Your task to perform on an android device: turn off picture-in-picture Image 0: 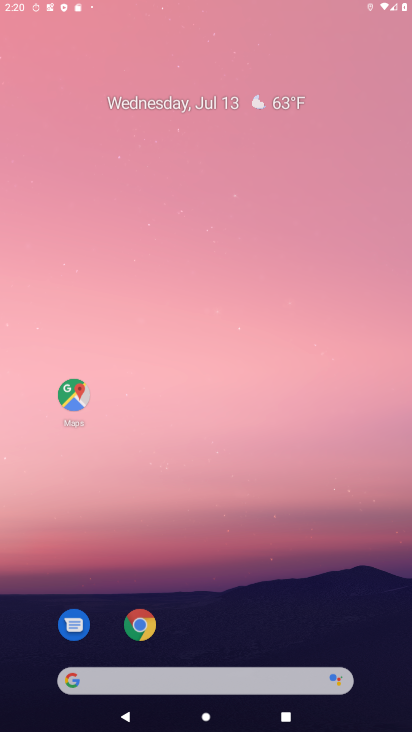
Step 0: drag from (209, 323) to (223, 450)
Your task to perform on an android device: turn off picture-in-picture Image 1: 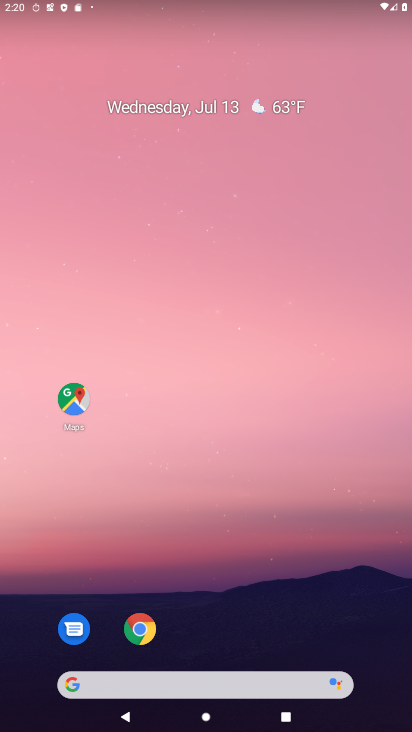
Step 1: drag from (174, 645) to (224, 182)
Your task to perform on an android device: turn off picture-in-picture Image 2: 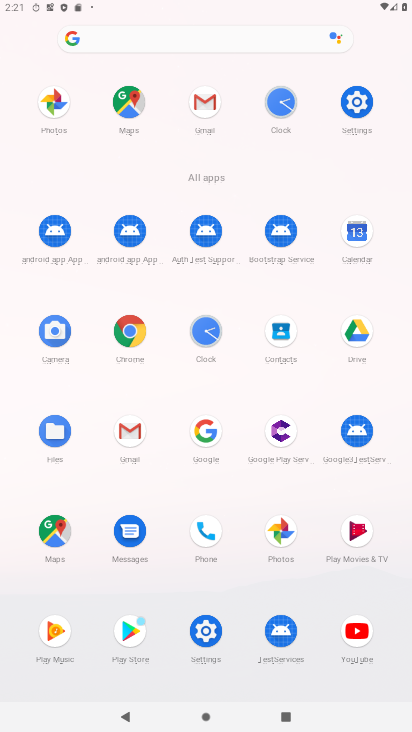
Step 2: click (359, 100)
Your task to perform on an android device: turn off picture-in-picture Image 3: 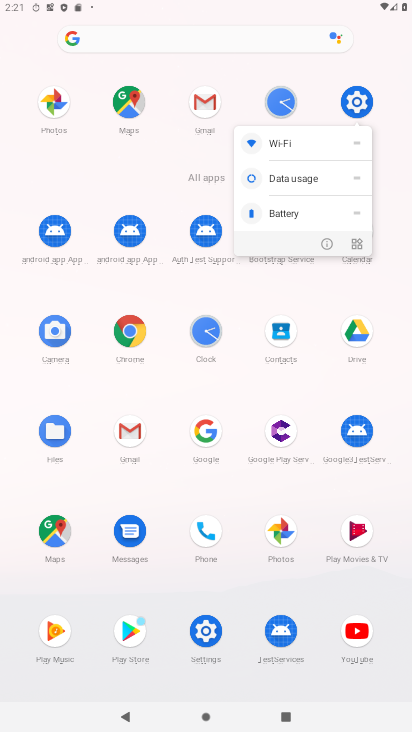
Step 3: click (323, 249)
Your task to perform on an android device: turn off picture-in-picture Image 4: 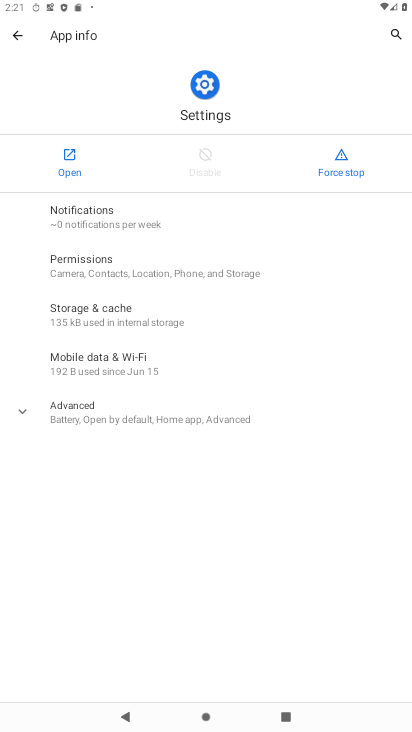
Step 4: click (58, 161)
Your task to perform on an android device: turn off picture-in-picture Image 5: 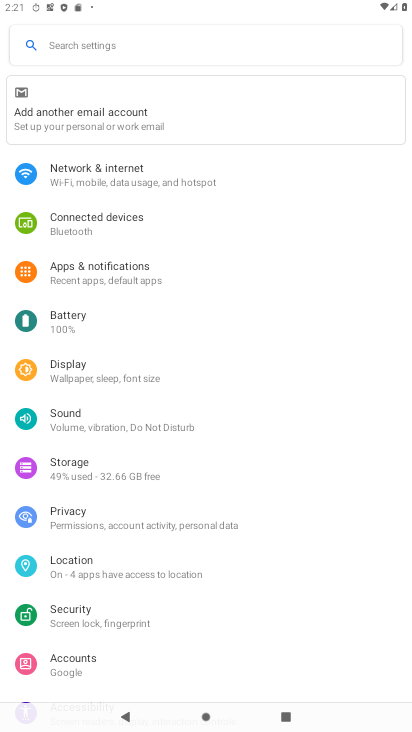
Step 5: drag from (115, 608) to (218, 247)
Your task to perform on an android device: turn off picture-in-picture Image 6: 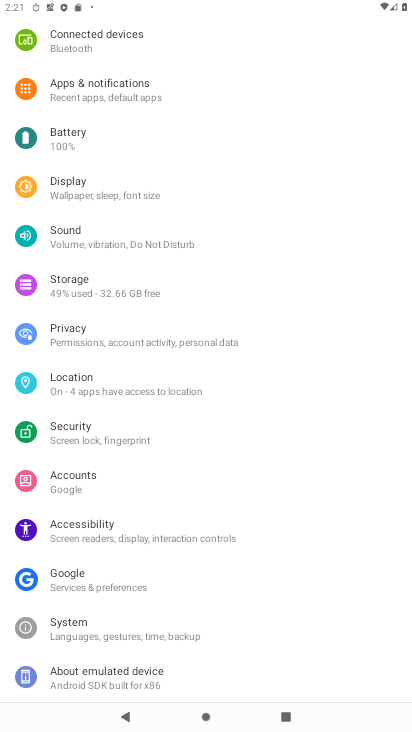
Step 6: click (122, 390)
Your task to perform on an android device: turn off picture-in-picture Image 7: 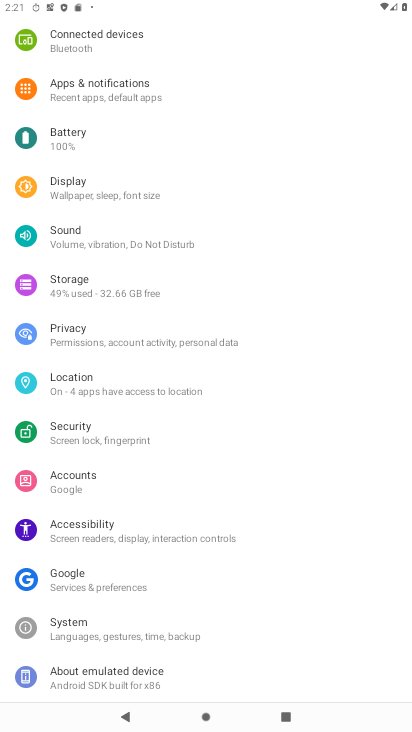
Step 7: click (122, 390)
Your task to perform on an android device: turn off picture-in-picture Image 8: 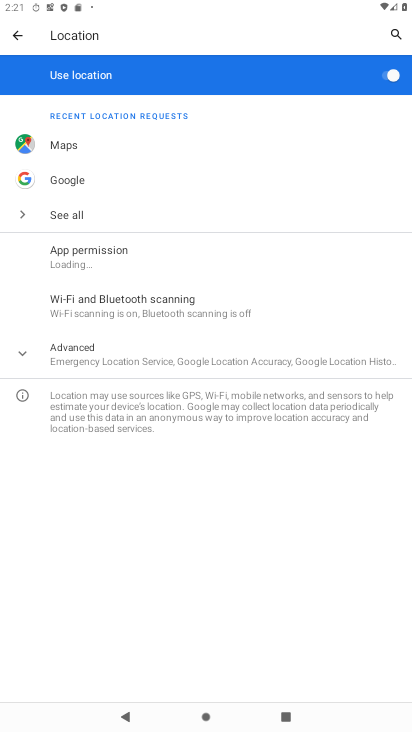
Step 8: click (22, 29)
Your task to perform on an android device: turn off picture-in-picture Image 9: 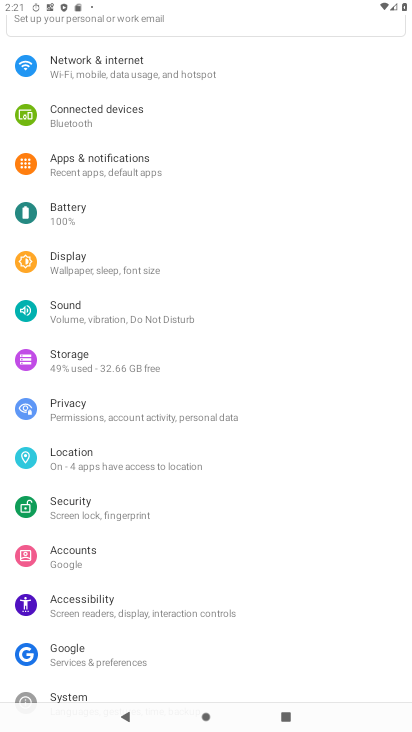
Step 9: click (120, 159)
Your task to perform on an android device: turn off picture-in-picture Image 10: 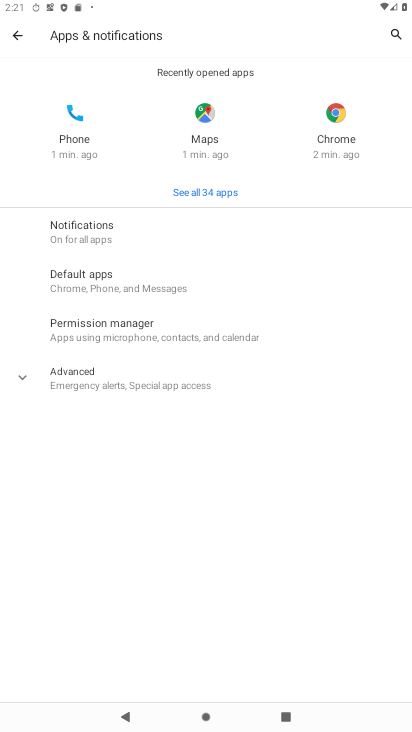
Step 10: click (85, 368)
Your task to perform on an android device: turn off picture-in-picture Image 11: 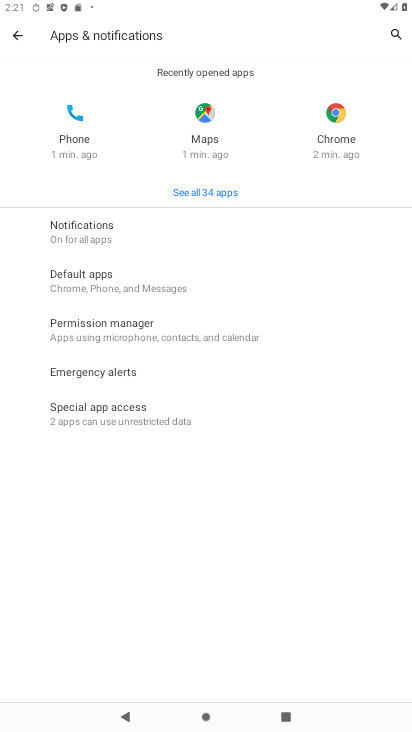
Step 11: click (98, 421)
Your task to perform on an android device: turn off picture-in-picture Image 12: 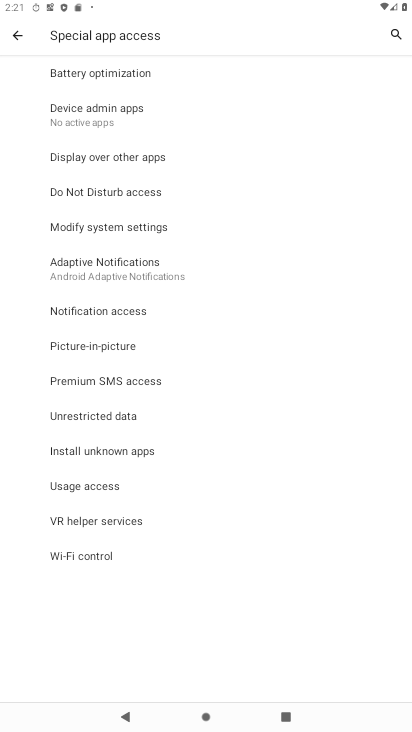
Step 12: drag from (187, 558) to (202, 221)
Your task to perform on an android device: turn off picture-in-picture Image 13: 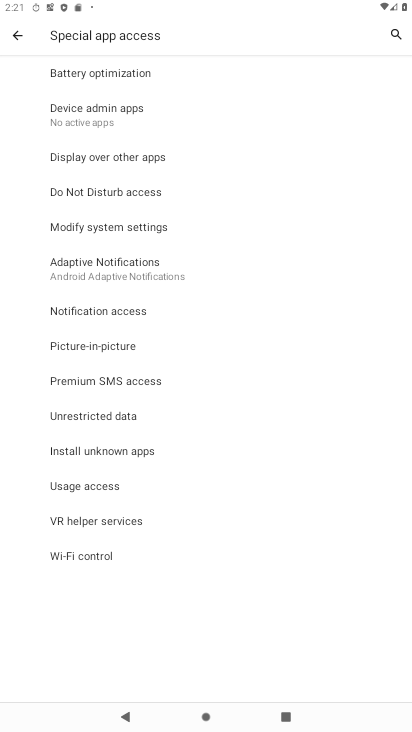
Step 13: drag from (190, 543) to (211, 324)
Your task to perform on an android device: turn off picture-in-picture Image 14: 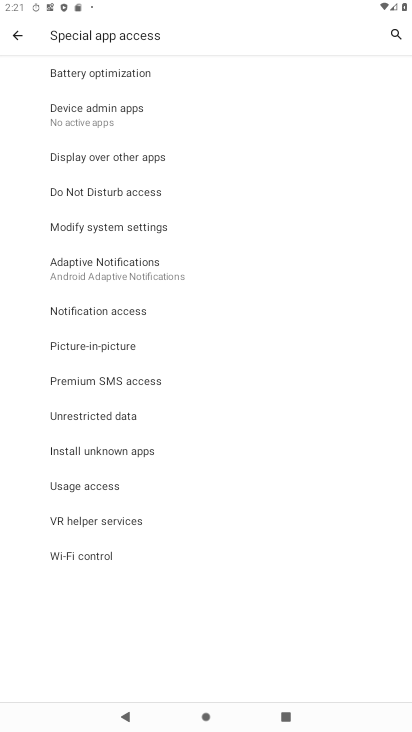
Step 14: click (138, 344)
Your task to perform on an android device: turn off picture-in-picture Image 15: 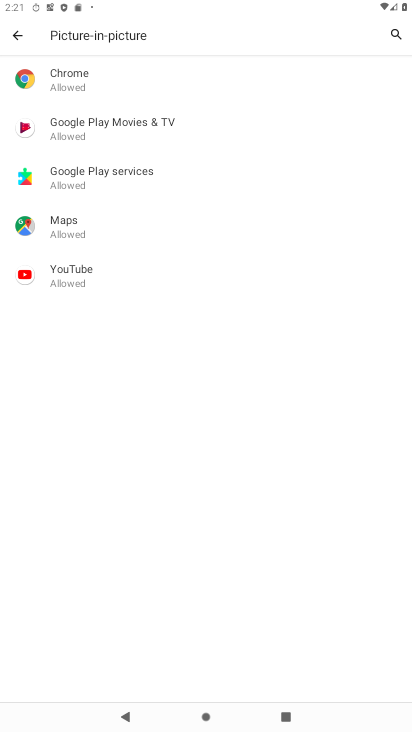
Step 15: click (127, 131)
Your task to perform on an android device: turn off picture-in-picture Image 16: 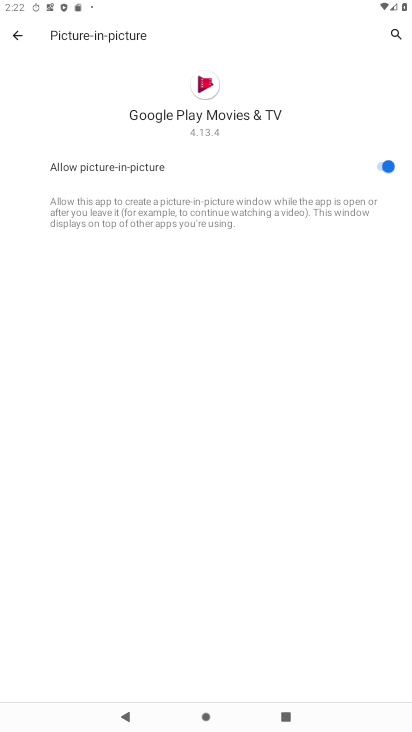
Step 16: click (380, 166)
Your task to perform on an android device: turn off picture-in-picture Image 17: 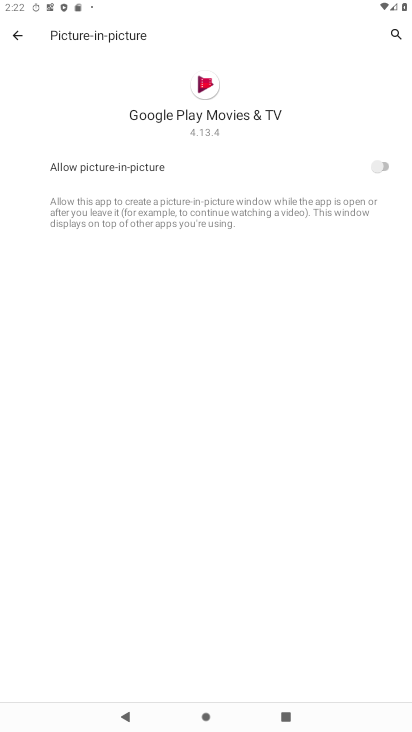
Step 17: task complete